Your task to perform on an android device: What is the recent news? Image 0: 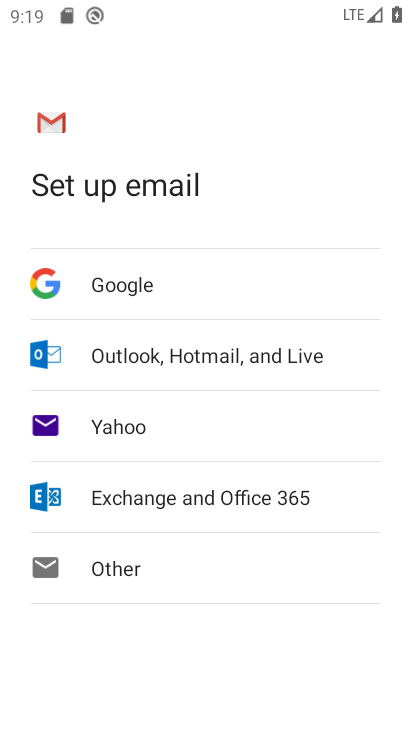
Step 0: press home button
Your task to perform on an android device: What is the recent news? Image 1: 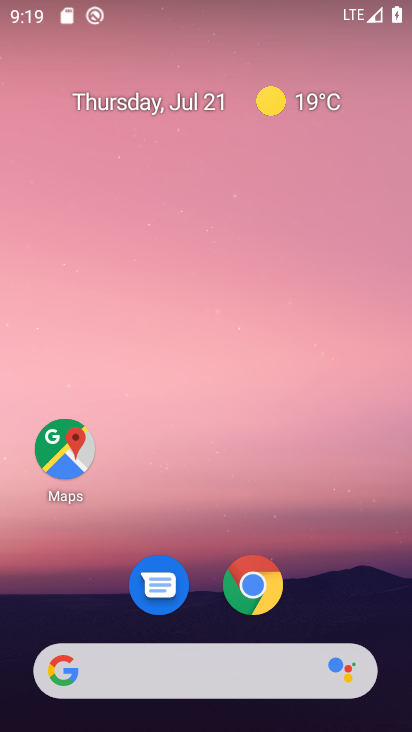
Step 1: click (226, 676)
Your task to perform on an android device: What is the recent news? Image 2: 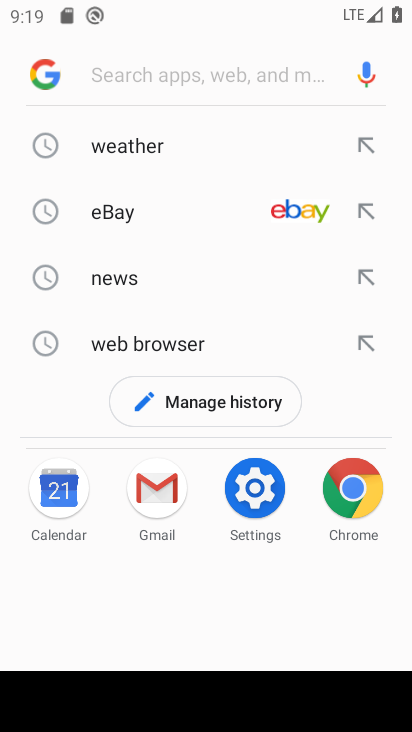
Step 2: click (122, 276)
Your task to perform on an android device: What is the recent news? Image 3: 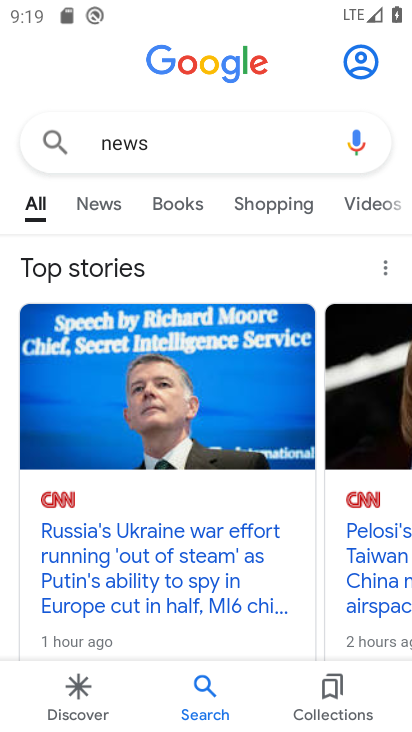
Step 3: task complete